Your task to perform on an android device: refresh tabs in the chrome app Image 0: 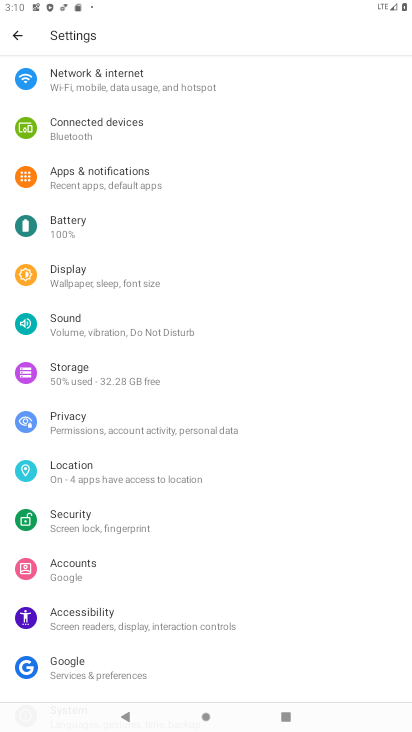
Step 0: press home button
Your task to perform on an android device: refresh tabs in the chrome app Image 1: 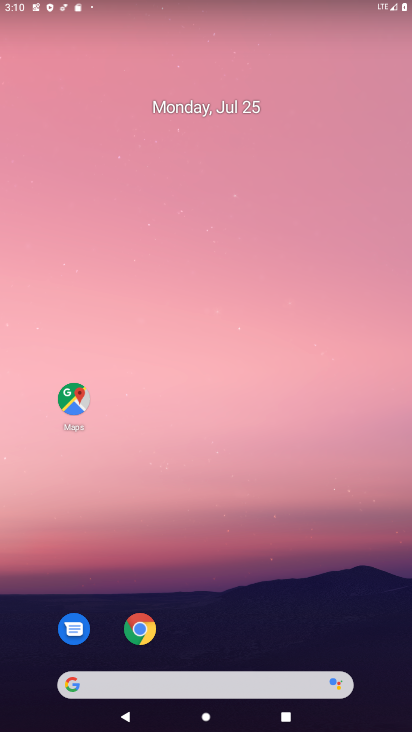
Step 1: drag from (197, 634) to (345, 221)
Your task to perform on an android device: refresh tabs in the chrome app Image 2: 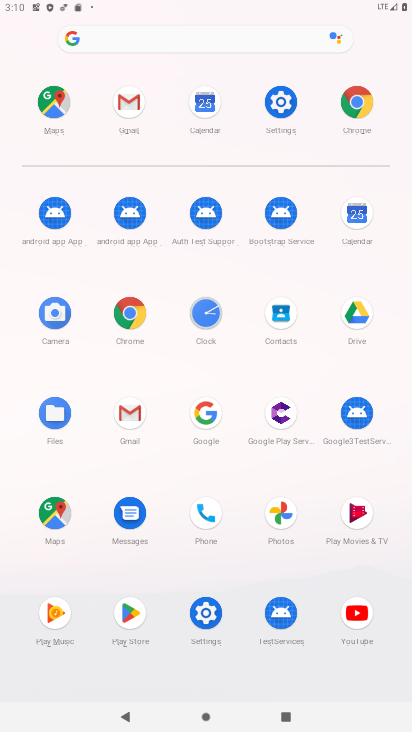
Step 2: click (357, 106)
Your task to perform on an android device: refresh tabs in the chrome app Image 3: 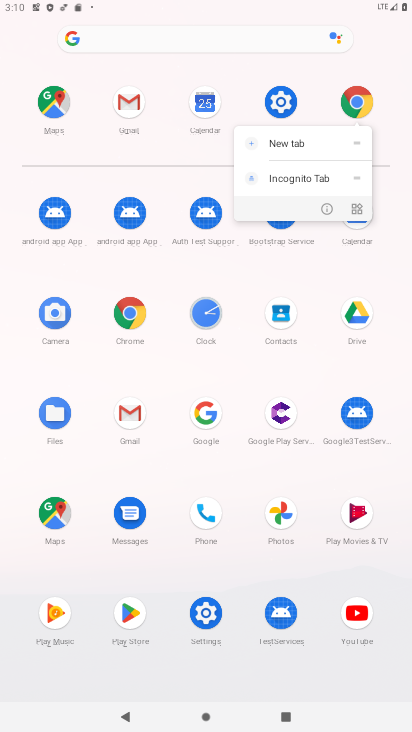
Step 3: click (322, 206)
Your task to perform on an android device: refresh tabs in the chrome app Image 4: 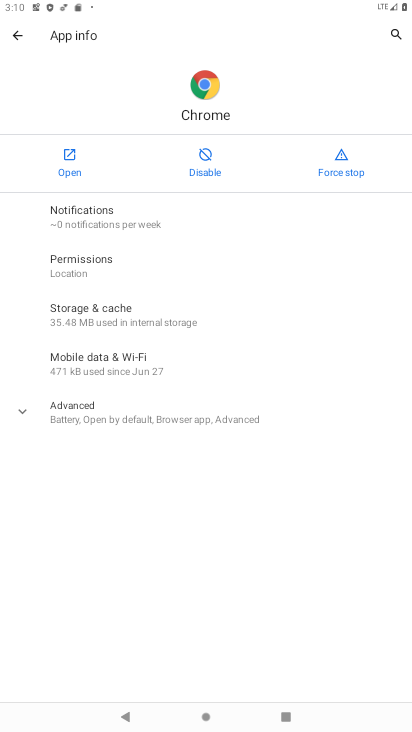
Step 4: click (67, 152)
Your task to perform on an android device: refresh tabs in the chrome app Image 5: 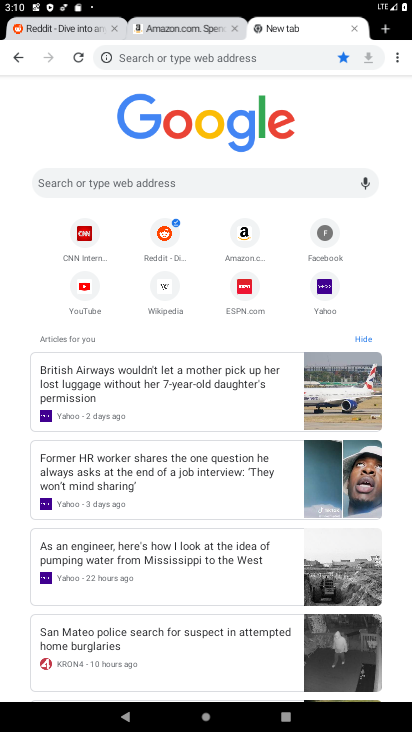
Step 5: click (75, 62)
Your task to perform on an android device: refresh tabs in the chrome app Image 6: 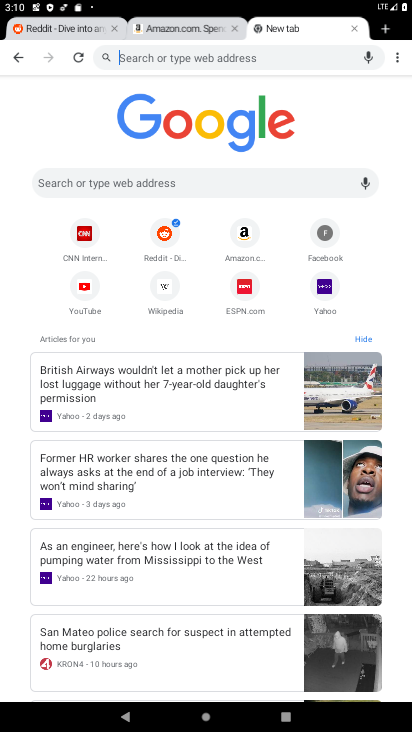
Step 6: task complete